Your task to perform on an android device: check storage Image 0: 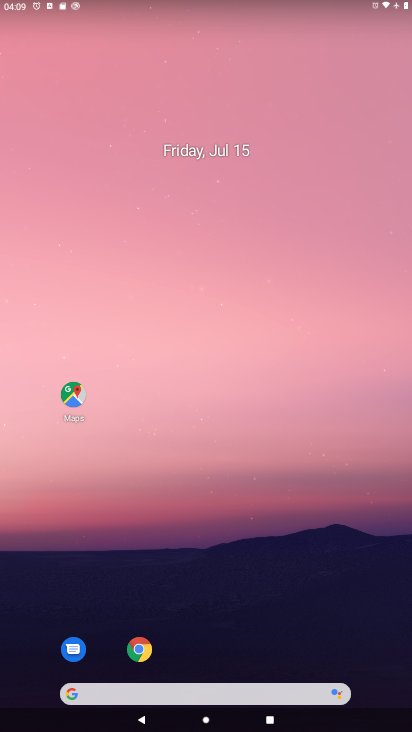
Step 0: drag from (302, 111) to (304, 28)
Your task to perform on an android device: check storage Image 1: 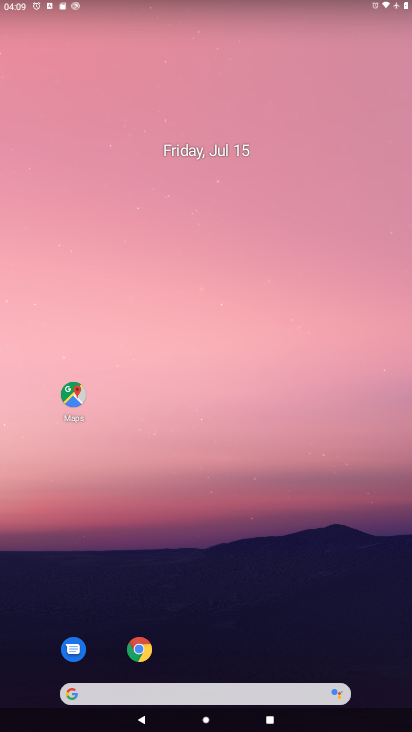
Step 1: drag from (379, 671) to (310, 72)
Your task to perform on an android device: check storage Image 2: 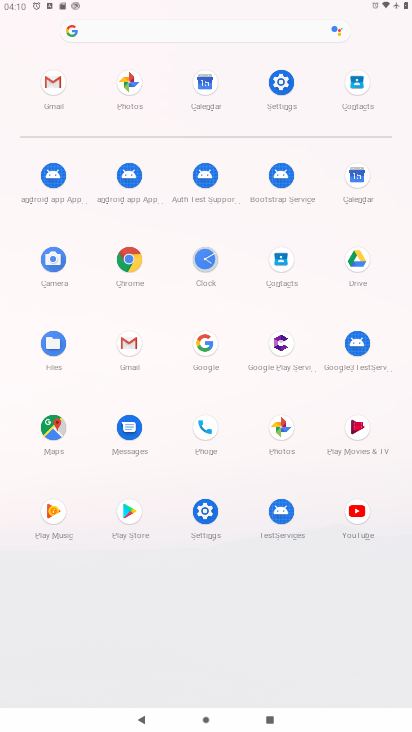
Step 2: click (206, 513)
Your task to perform on an android device: check storage Image 3: 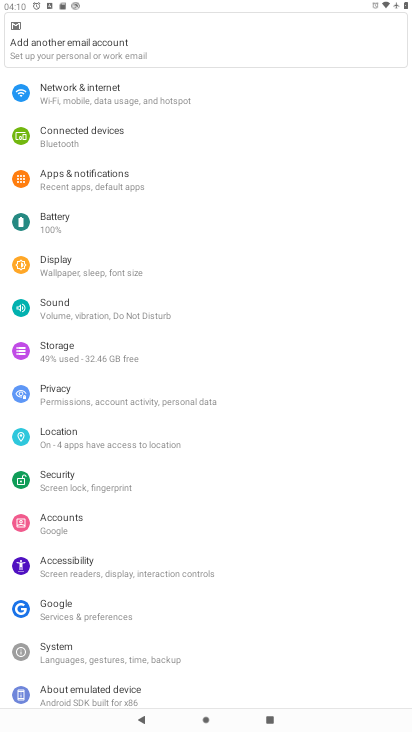
Step 3: click (60, 342)
Your task to perform on an android device: check storage Image 4: 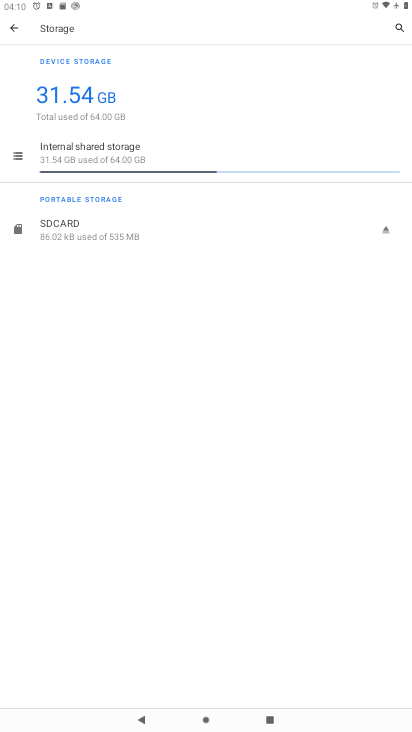
Step 4: task complete